Your task to perform on an android device: Go to Yahoo.com Image 0: 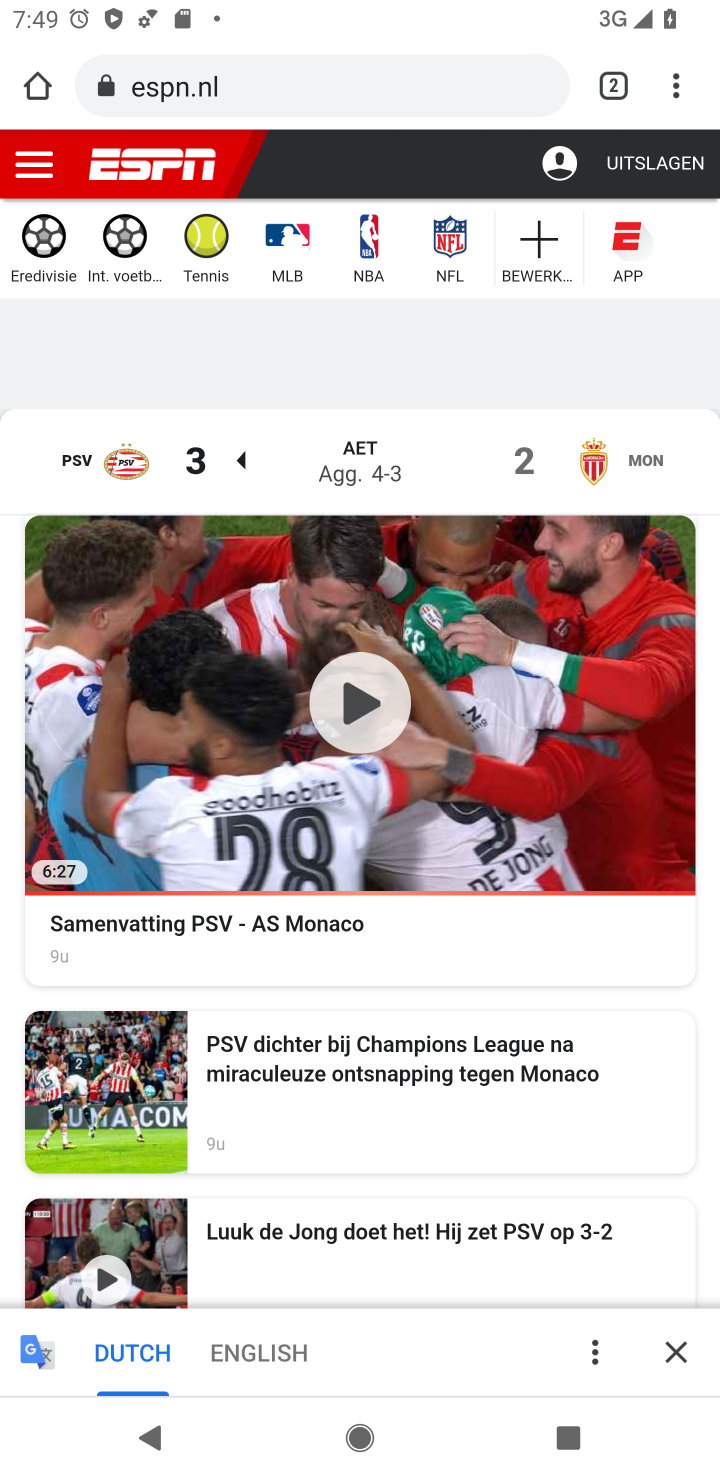
Step 0: click (678, 88)
Your task to perform on an android device: Go to Yahoo.com Image 1: 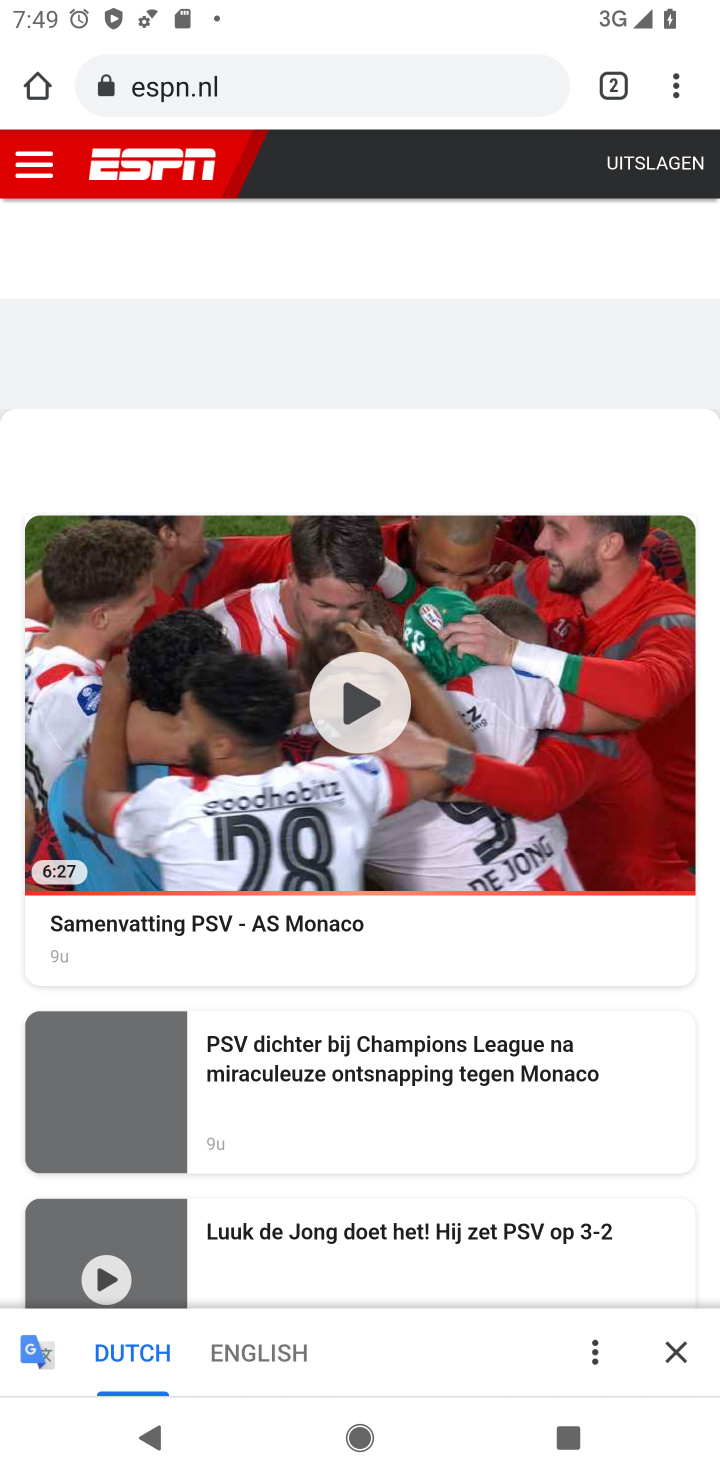
Step 1: click (616, 79)
Your task to perform on an android device: Go to Yahoo.com Image 2: 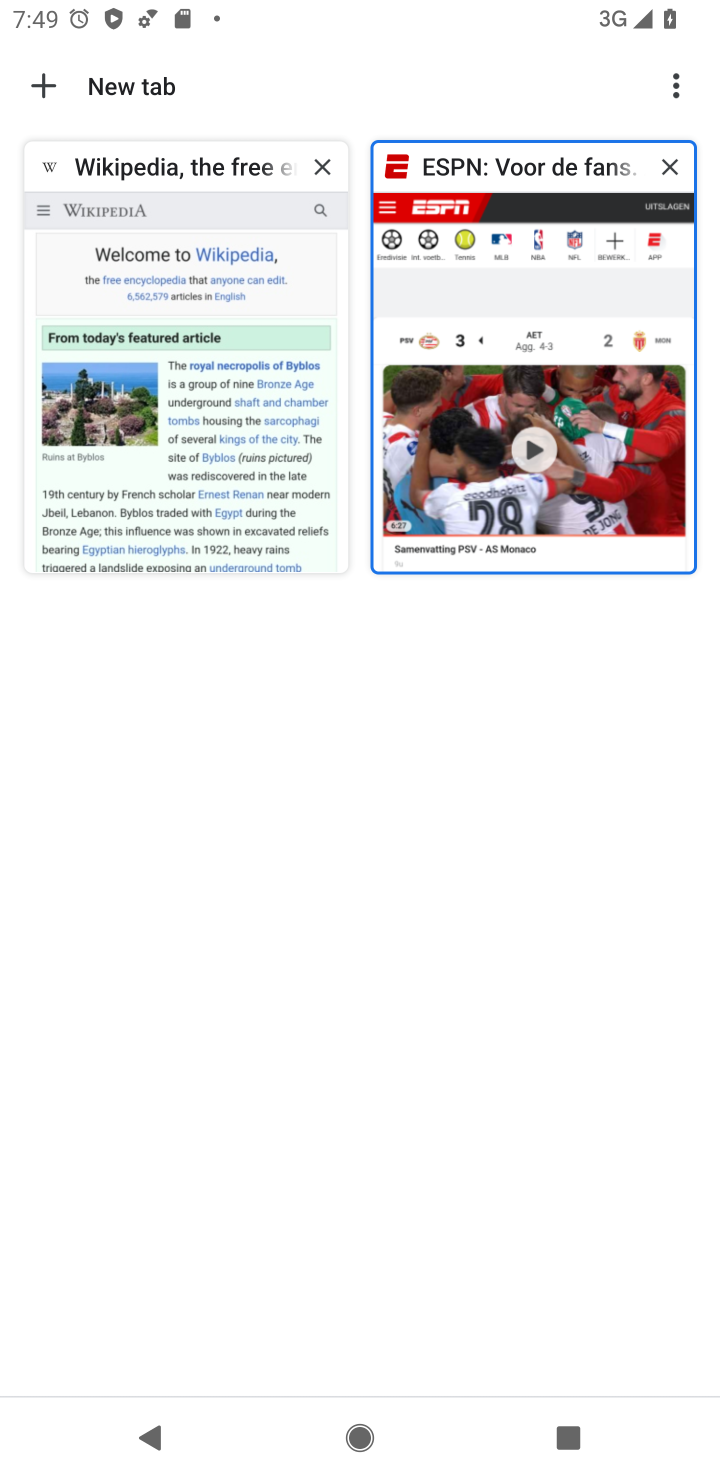
Step 2: click (49, 82)
Your task to perform on an android device: Go to Yahoo.com Image 3: 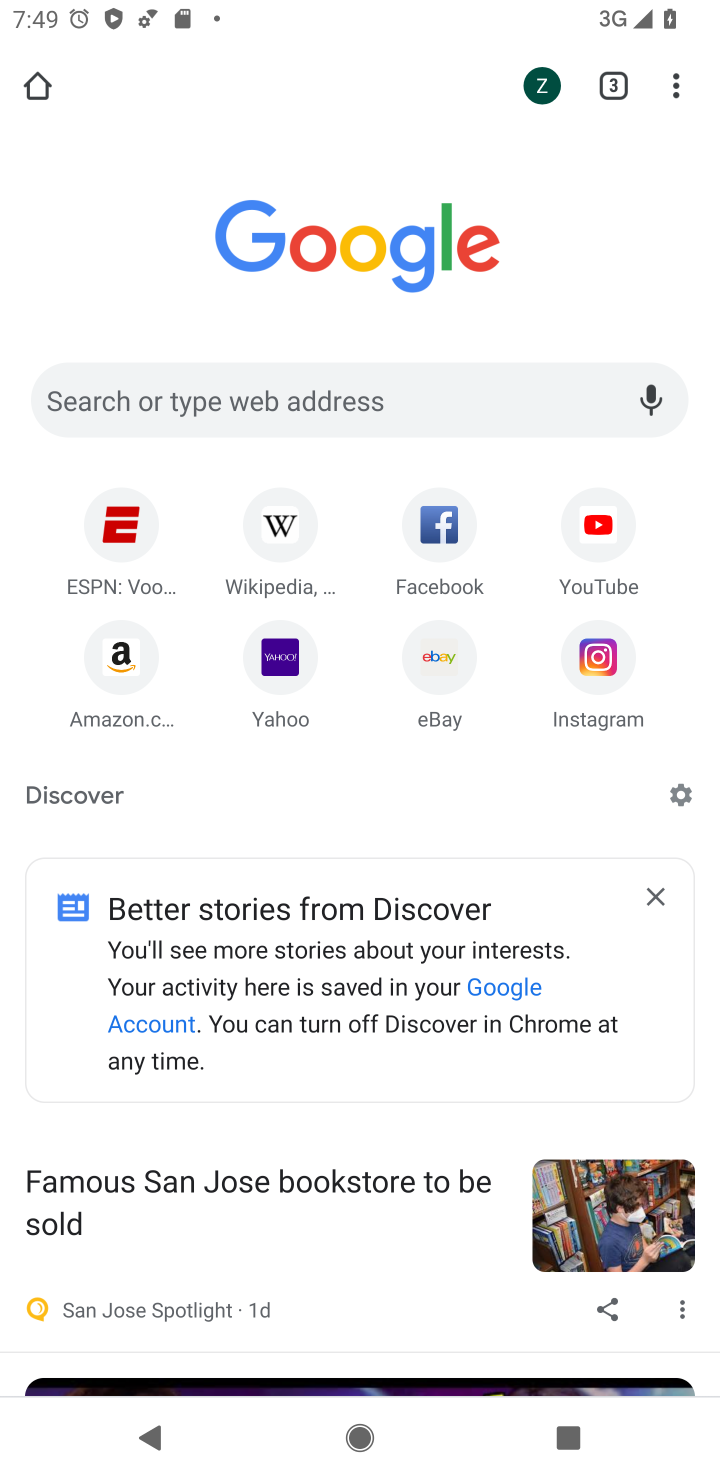
Step 3: click (267, 665)
Your task to perform on an android device: Go to Yahoo.com Image 4: 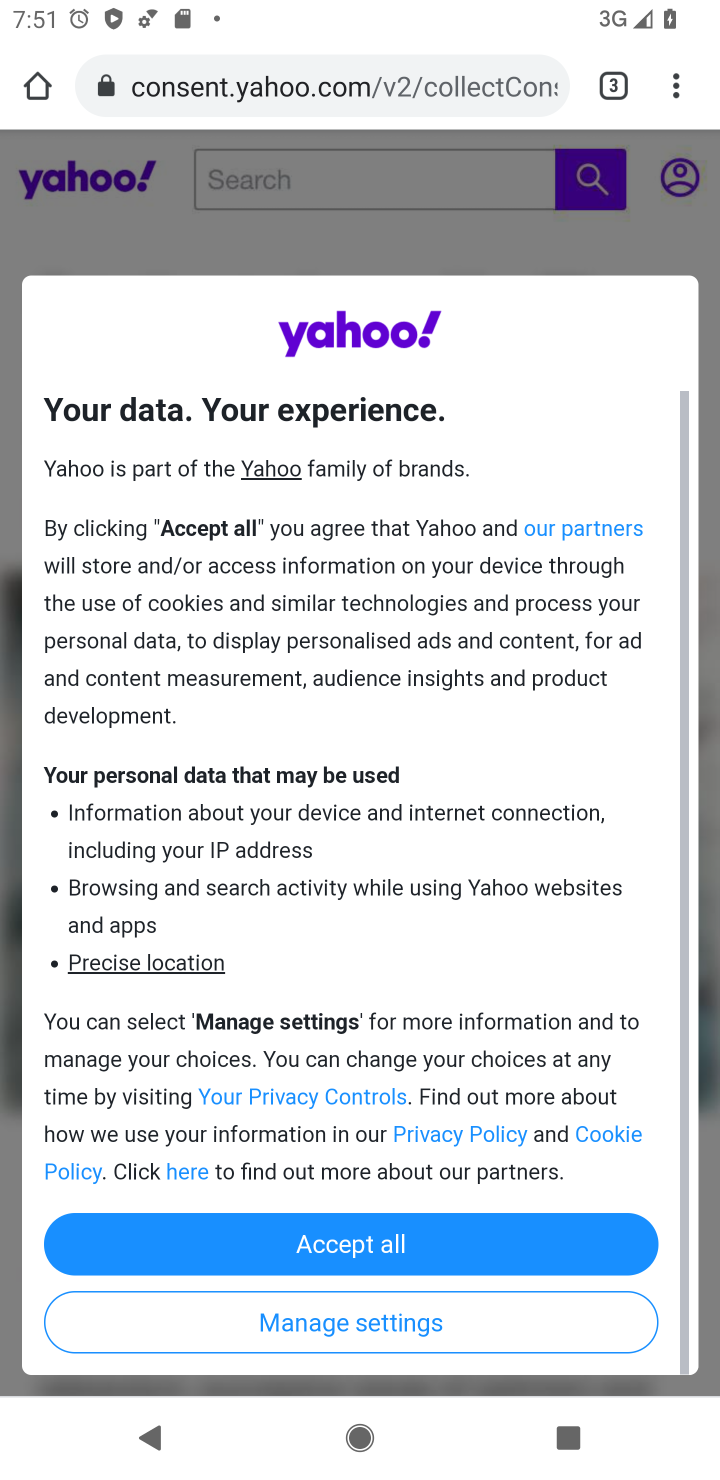
Step 4: task complete